Your task to perform on an android device: Open the calendar app, open the side menu, and click the "Day" option Image 0: 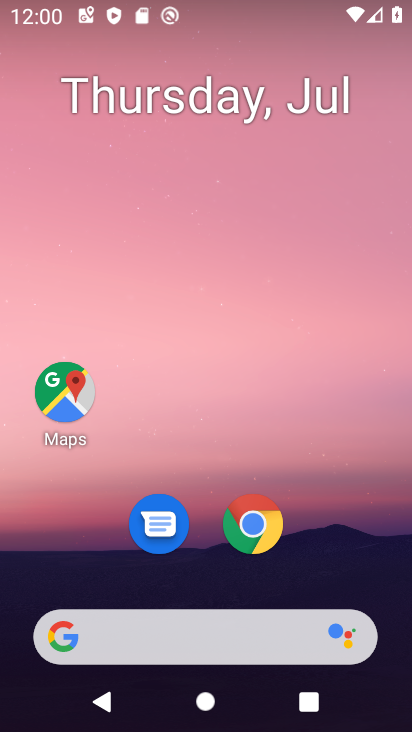
Step 0: drag from (184, 631) to (274, 185)
Your task to perform on an android device: Open the calendar app, open the side menu, and click the "Day" option Image 1: 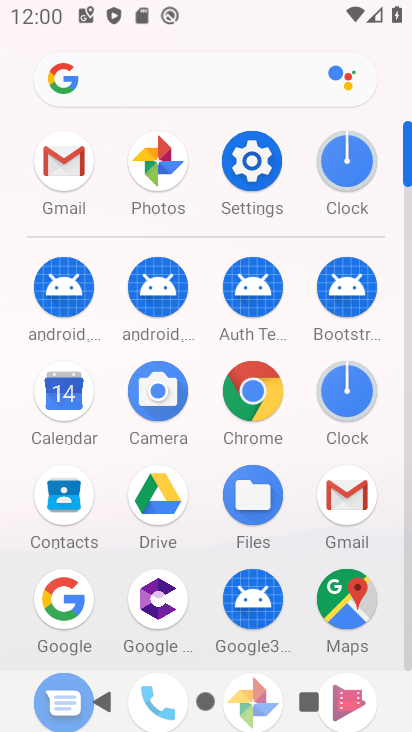
Step 1: click (66, 398)
Your task to perform on an android device: Open the calendar app, open the side menu, and click the "Day" option Image 2: 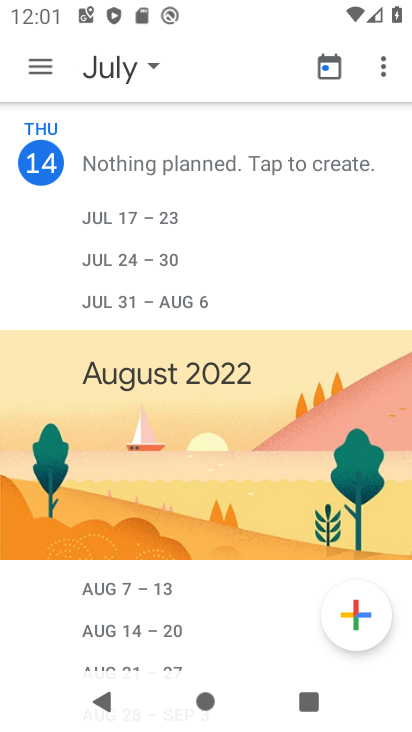
Step 2: click (42, 72)
Your task to perform on an android device: Open the calendar app, open the side menu, and click the "Day" option Image 3: 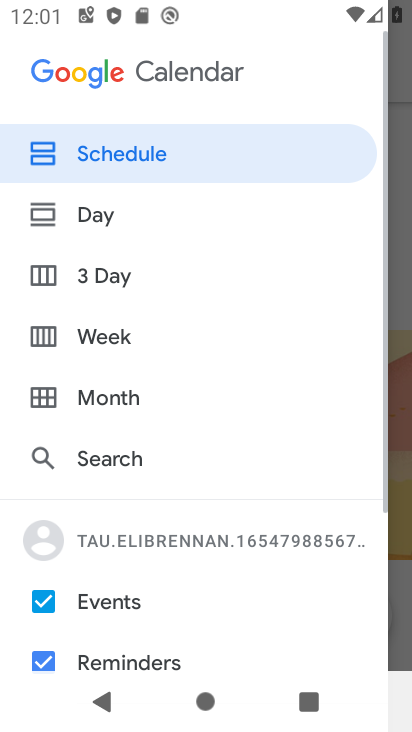
Step 3: click (104, 214)
Your task to perform on an android device: Open the calendar app, open the side menu, and click the "Day" option Image 4: 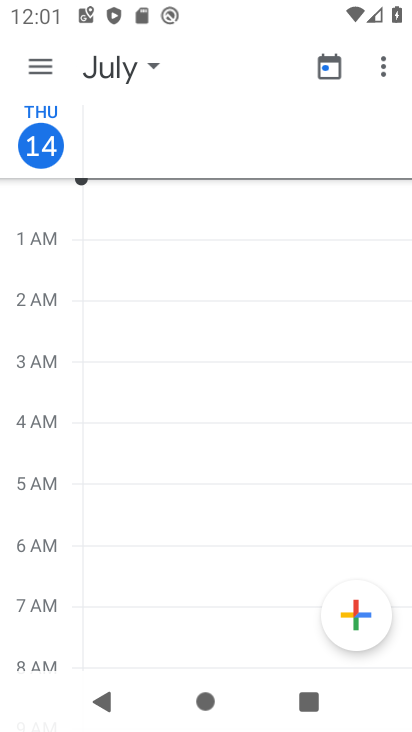
Step 4: task complete